Your task to perform on an android device: Go to privacy settings Image 0: 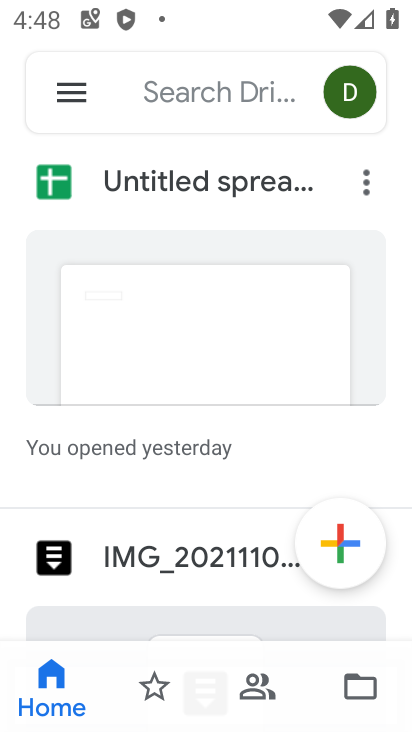
Step 0: press home button
Your task to perform on an android device: Go to privacy settings Image 1: 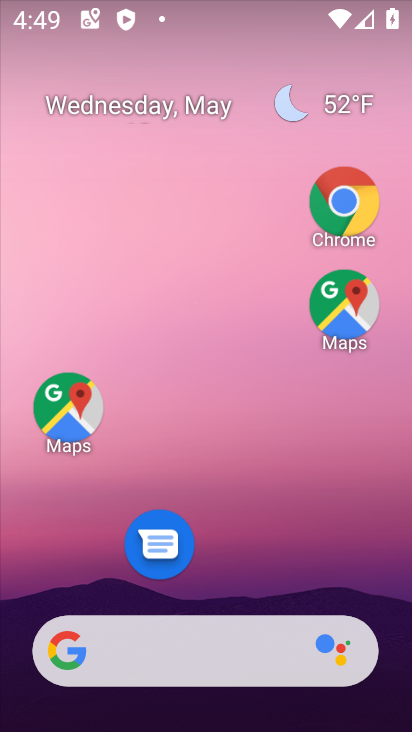
Step 1: drag from (273, 577) to (255, 196)
Your task to perform on an android device: Go to privacy settings Image 2: 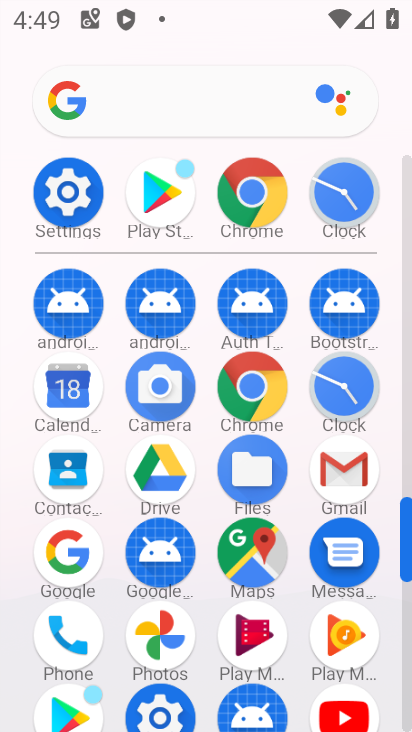
Step 2: click (65, 204)
Your task to perform on an android device: Go to privacy settings Image 3: 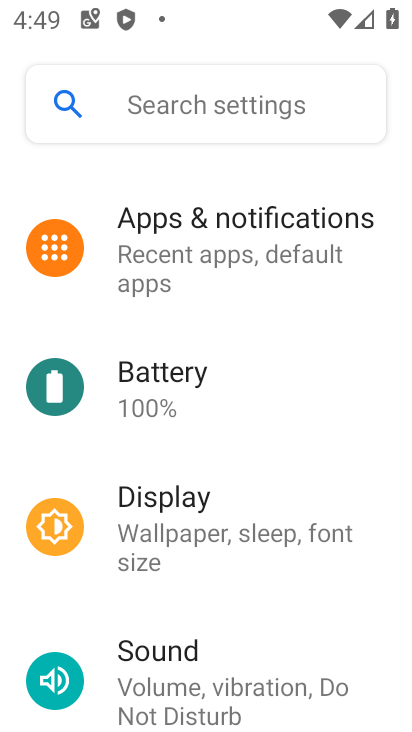
Step 3: drag from (160, 631) to (232, 373)
Your task to perform on an android device: Go to privacy settings Image 4: 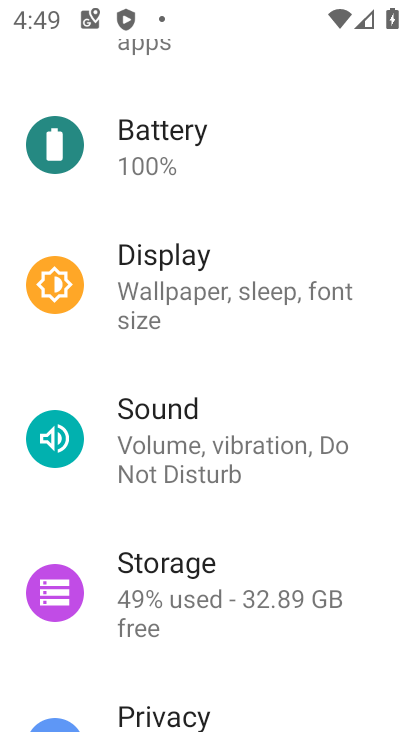
Step 4: click (154, 720)
Your task to perform on an android device: Go to privacy settings Image 5: 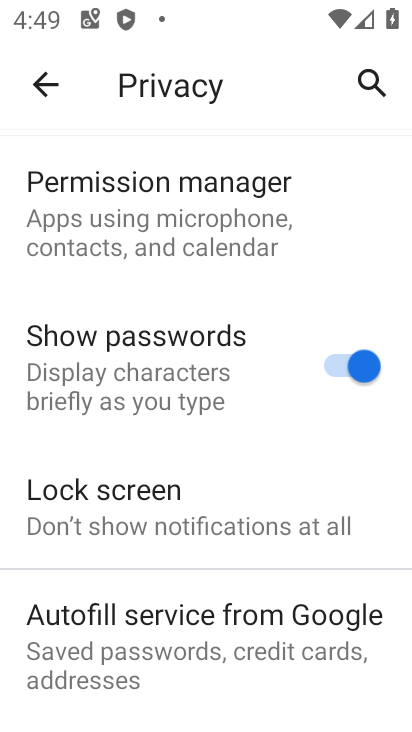
Step 5: task complete